Your task to perform on an android device: turn on the 12-hour format for clock Image 0: 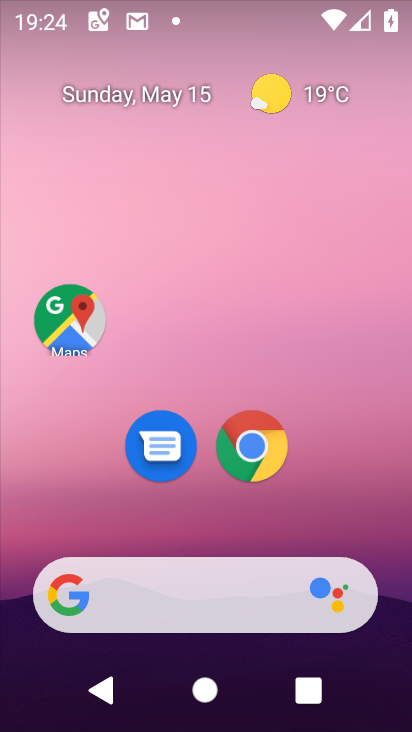
Step 0: drag from (268, 643) to (177, 115)
Your task to perform on an android device: turn on the 12-hour format for clock Image 1: 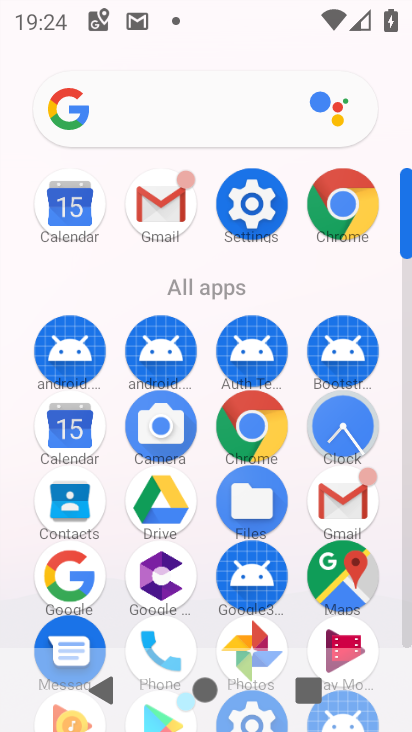
Step 1: drag from (289, 391) to (290, 278)
Your task to perform on an android device: turn on the 12-hour format for clock Image 2: 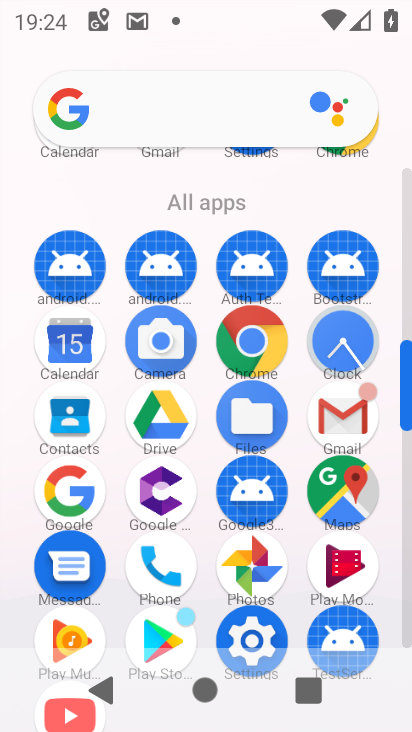
Step 2: click (362, 342)
Your task to perform on an android device: turn on the 12-hour format for clock Image 3: 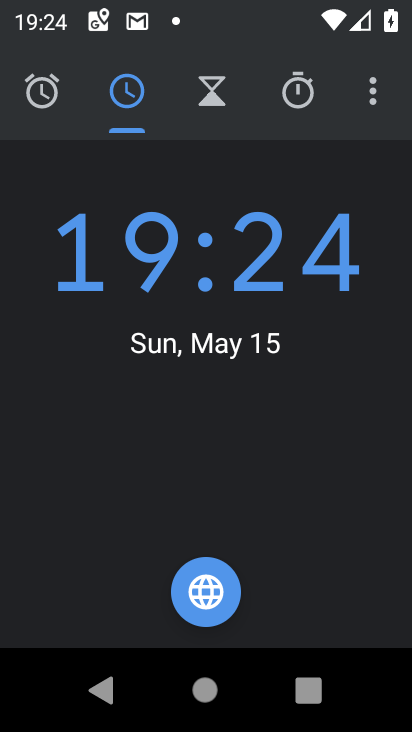
Step 3: click (373, 98)
Your task to perform on an android device: turn on the 12-hour format for clock Image 4: 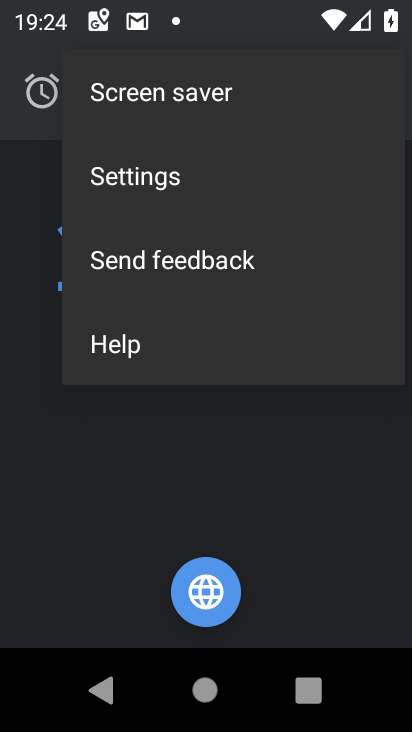
Step 4: click (252, 174)
Your task to perform on an android device: turn on the 12-hour format for clock Image 5: 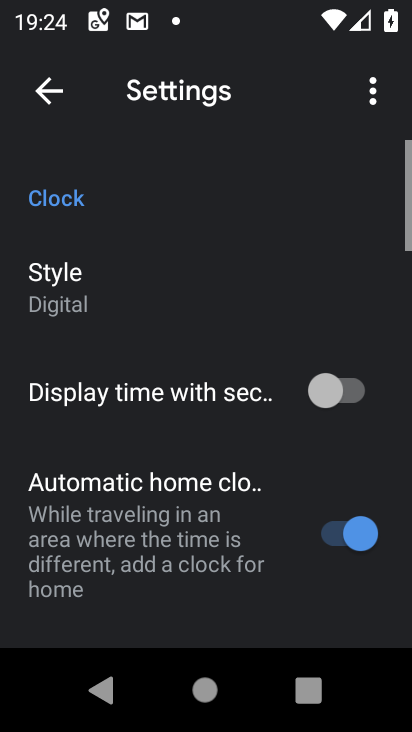
Step 5: drag from (237, 523) to (205, 183)
Your task to perform on an android device: turn on the 12-hour format for clock Image 6: 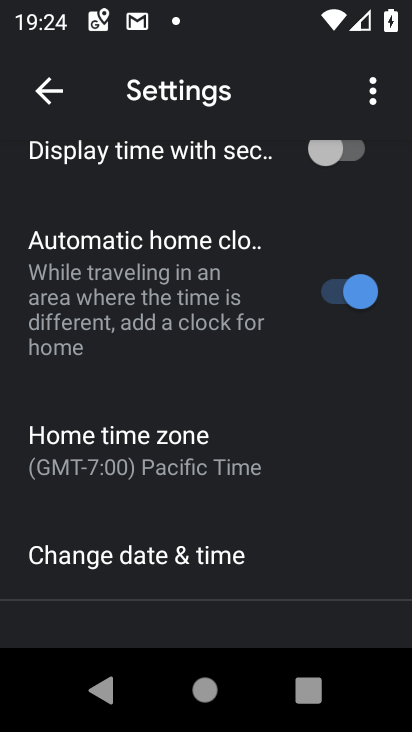
Step 6: click (213, 543)
Your task to perform on an android device: turn on the 12-hour format for clock Image 7: 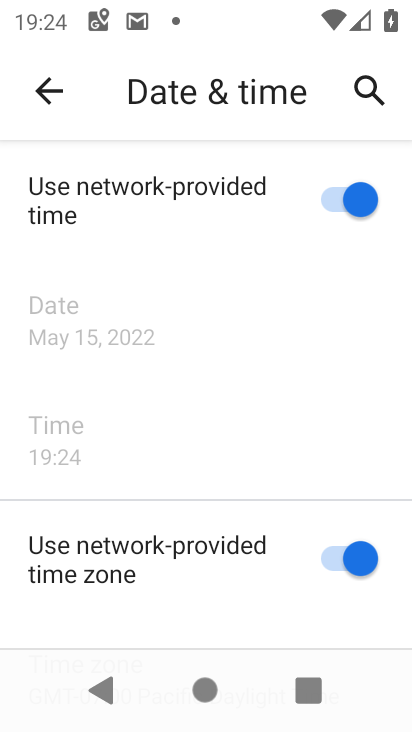
Step 7: drag from (299, 545) to (240, 250)
Your task to perform on an android device: turn on the 12-hour format for clock Image 8: 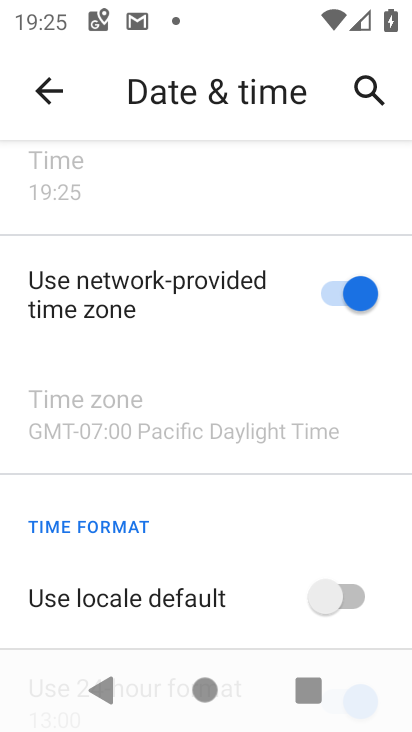
Step 8: drag from (285, 542) to (248, 313)
Your task to perform on an android device: turn on the 12-hour format for clock Image 9: 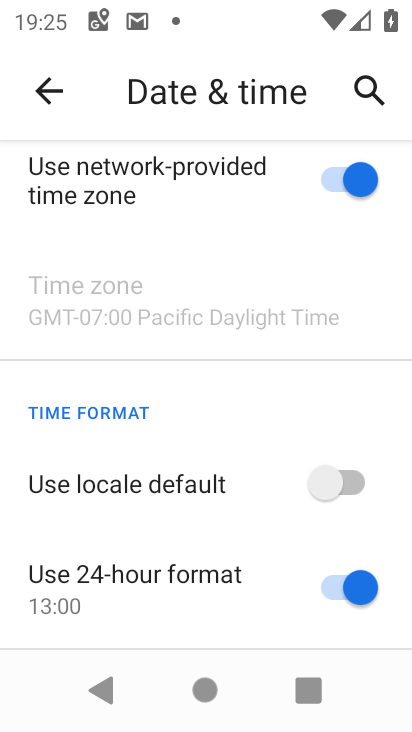
Step 9: click (344, 576)
Your task to perform on an android device: turn on the 12-hour format for clock Image 10: 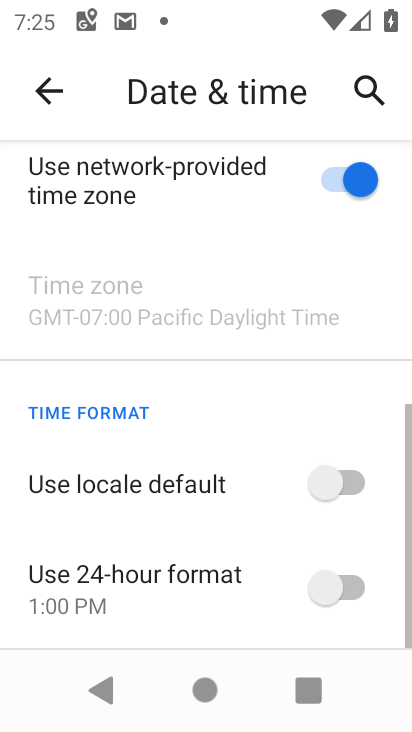
Step 10: task complete